Your task to perform on an android device: toggle javascript in the chrome app Image 0: 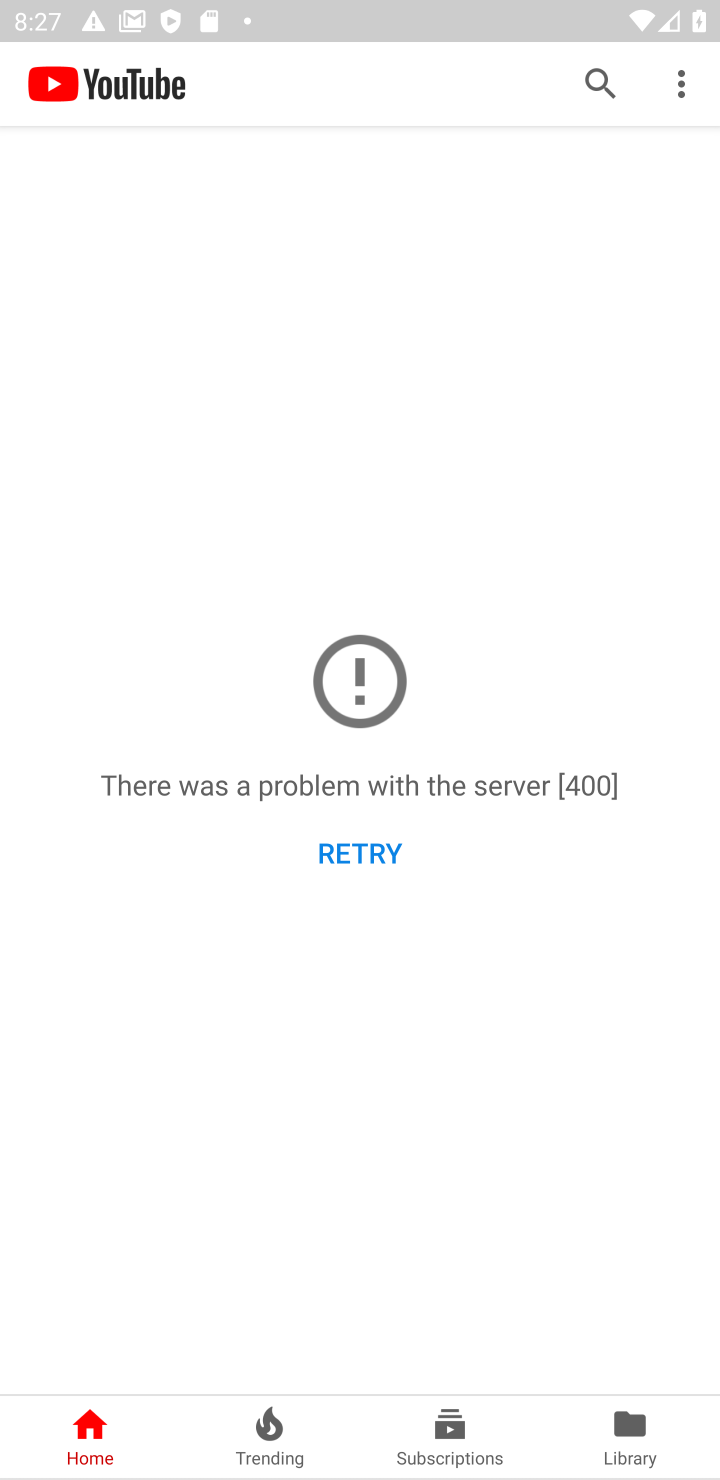
Step 0: press home button
Your task to perform on an android device: toggle javascript in the chrome app Image 1: 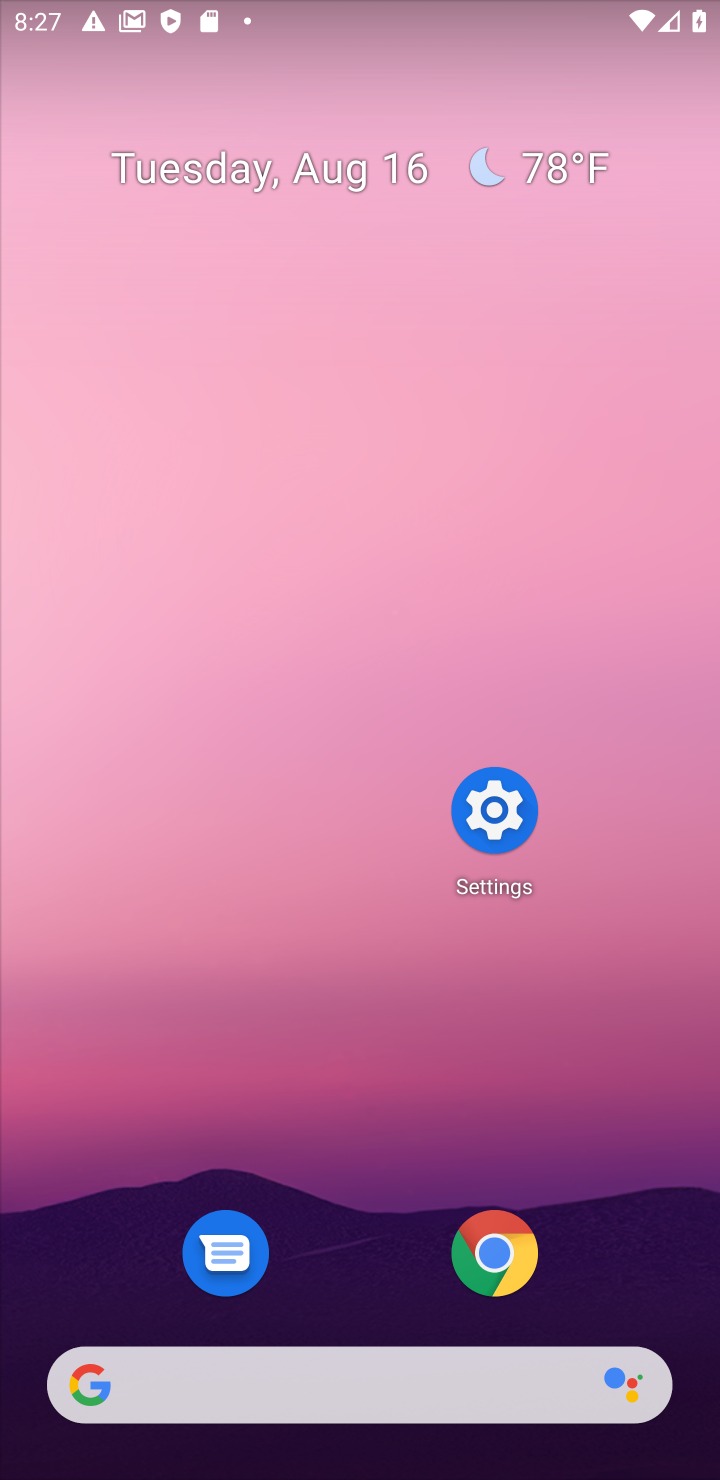
Step 1: click (495, 1258)
Your task to perform on an android device: toggle javascript in the chrome app Image 2: 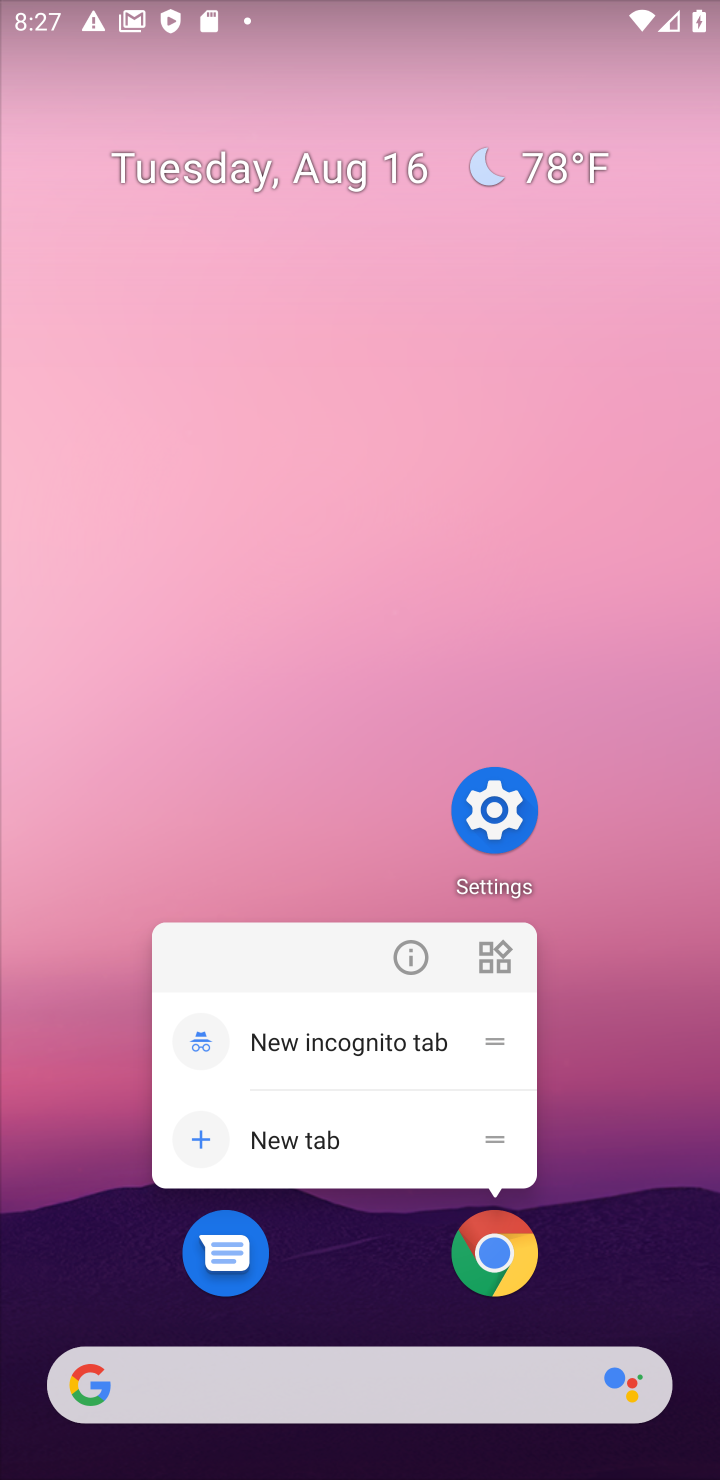
Step 2: click (495, 1264)
Your task to perform on an android device: toggle javascript in the chrome app Image 3: 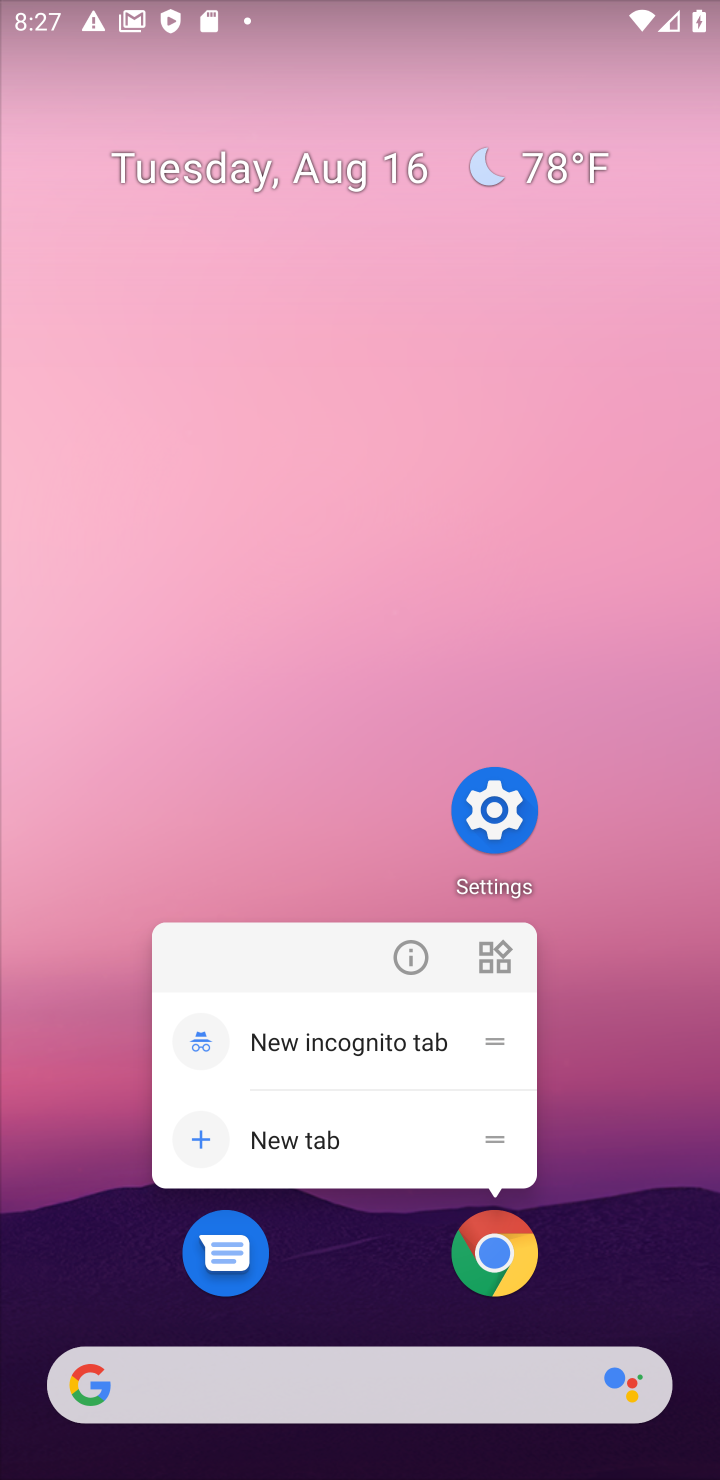
Step 3: click (492, 1273)
Your task to perform on an android device: toggle javascript in the chrome app Image 4: 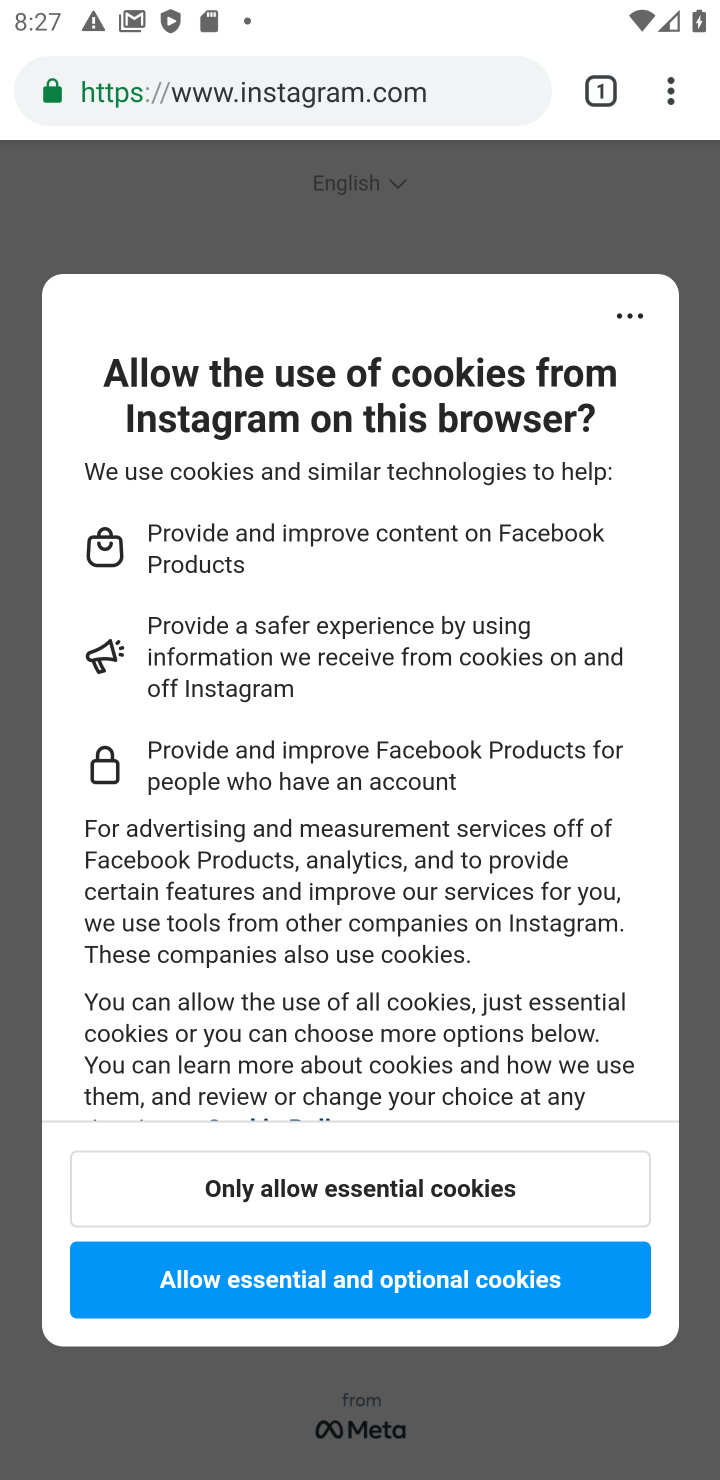
Step 4: drag from (675, 77) to (383, 1094)
Your task to perform on an android device: toggle javascript in the chrome app Image 5: 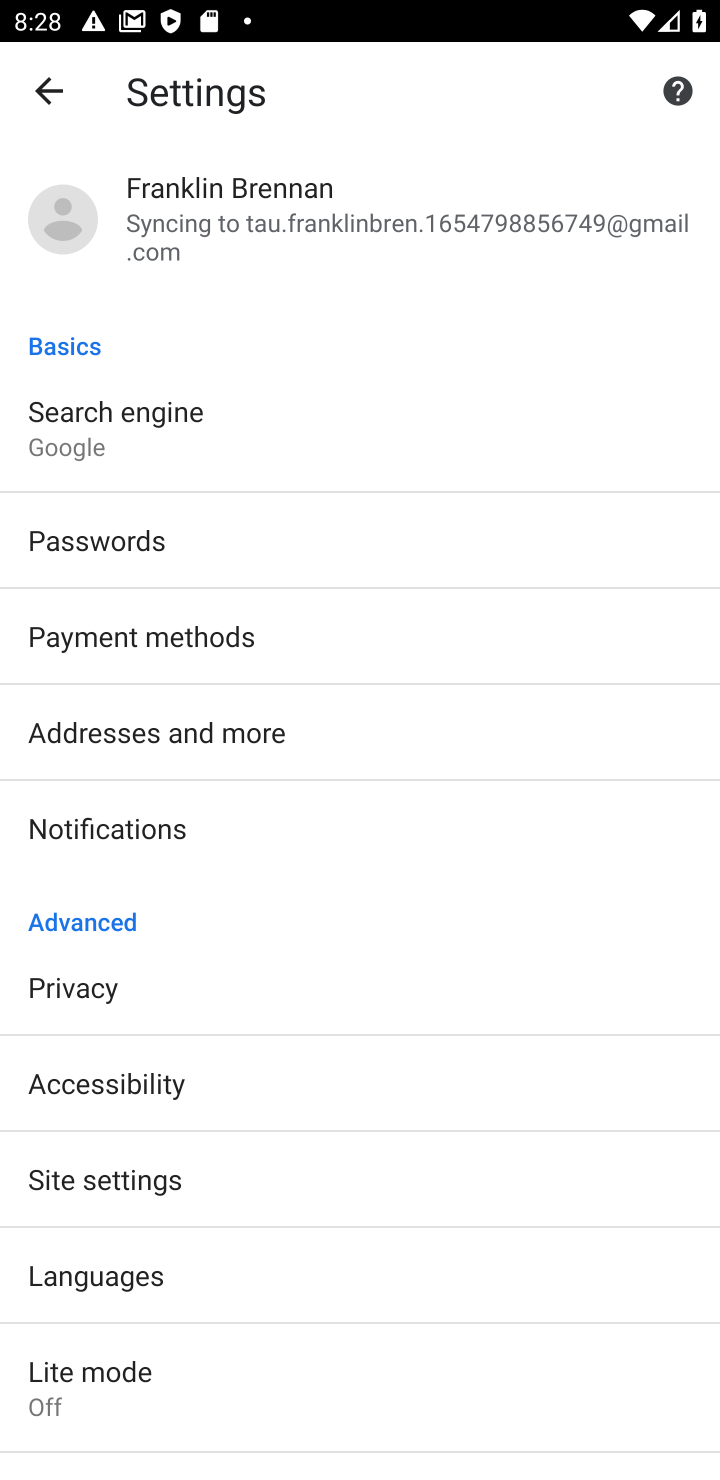
Step 5: click (154, 1178)
Your task to perform on an android device: toggle javascript in the chrome app Image 6: 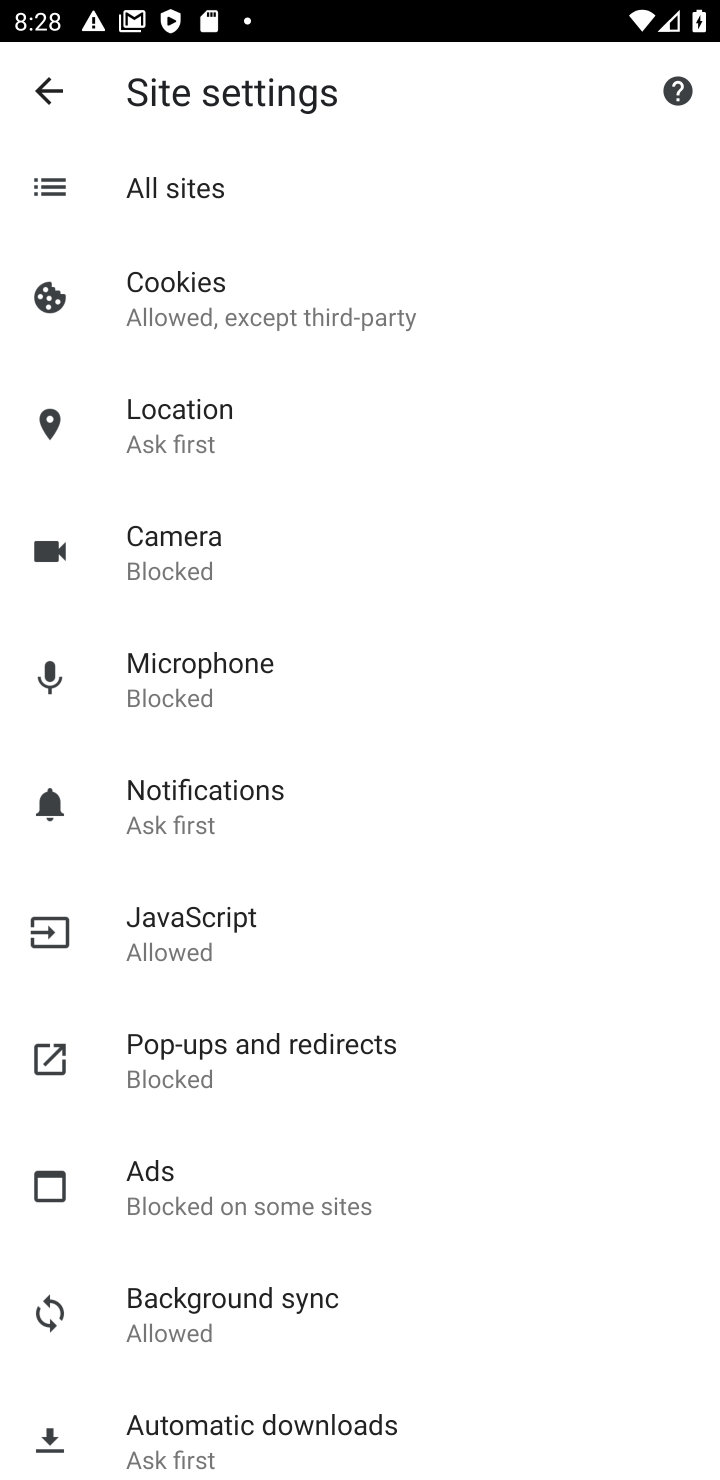
Step 6: click (188, 944)
Your task to perform on an android device: toggle javascript in the chrome app Image 7: 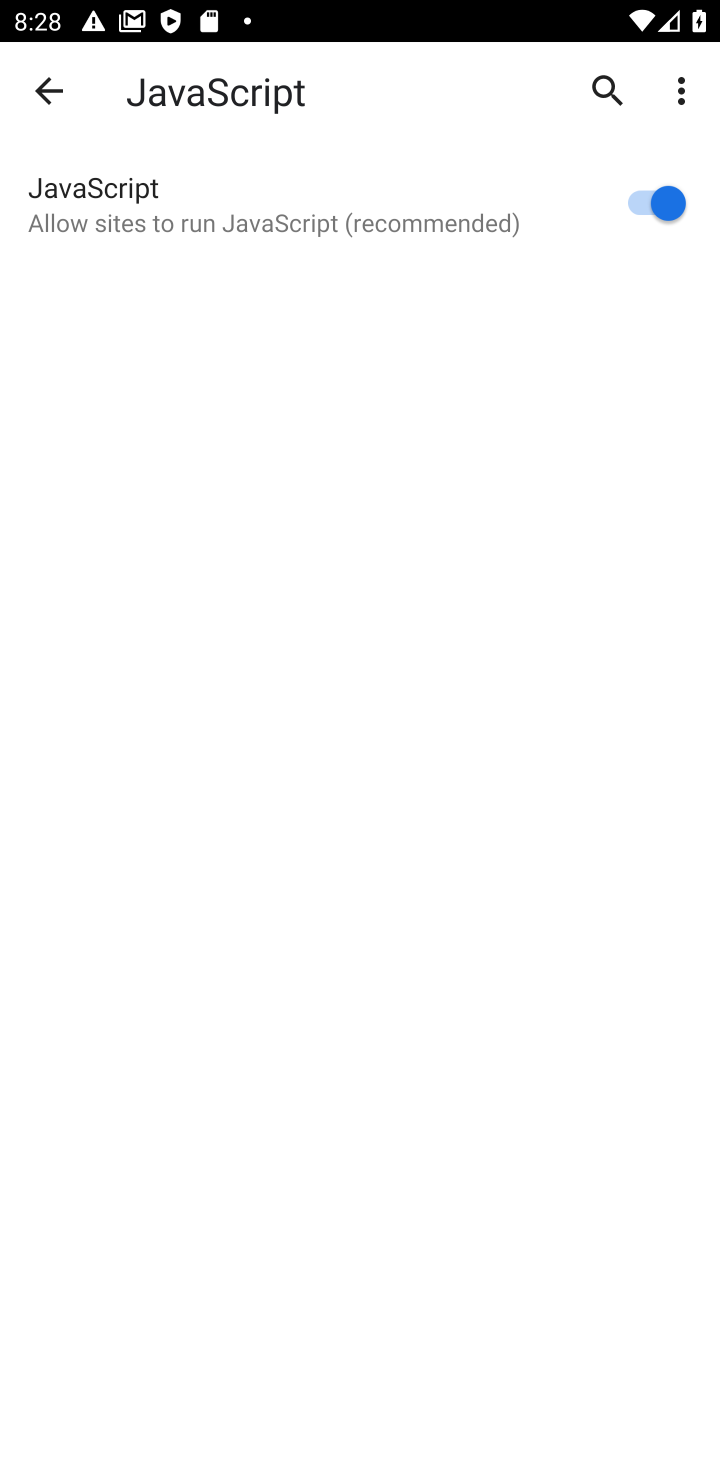
Step 7: click (647, 198)
Your task to perform on an android device: toggle javascript in the chrome app Image 8: 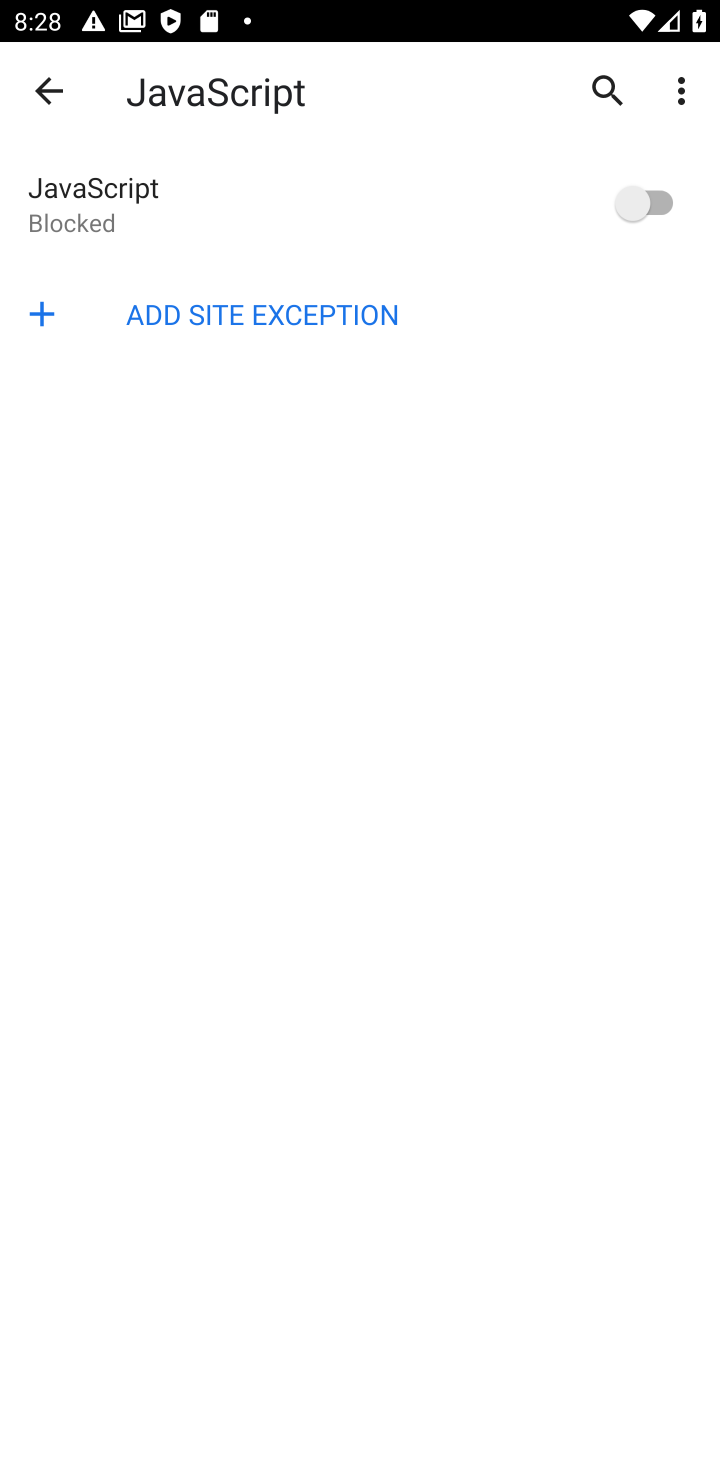
Step 8: task complete